Your task to perform on an android device: Search for Mexican restaurants on Maps Image 0: 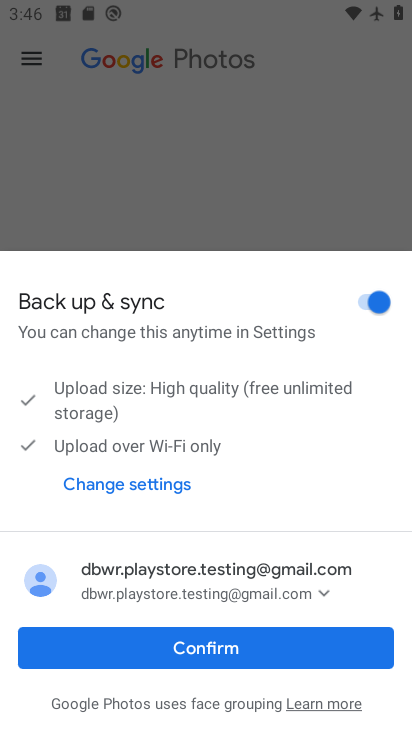
Step 0: press home button
Your task to perform on an android device: Search for Mexican restaurants on Maps Image 1: 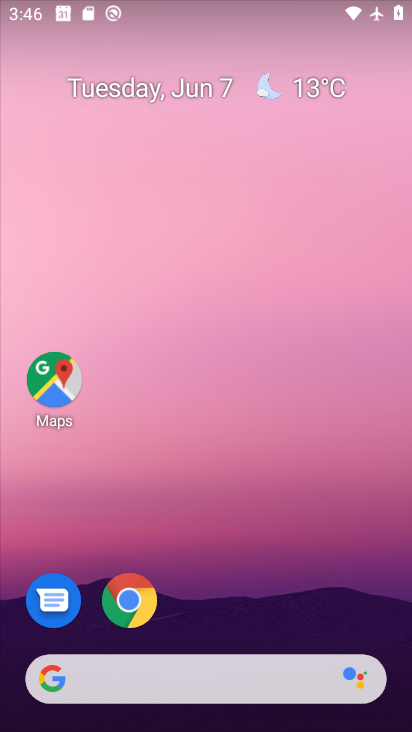
Step 1: click (53, 373)
Your task to perform on an android device: Search for Mexican restaurants on Maps Image 2: 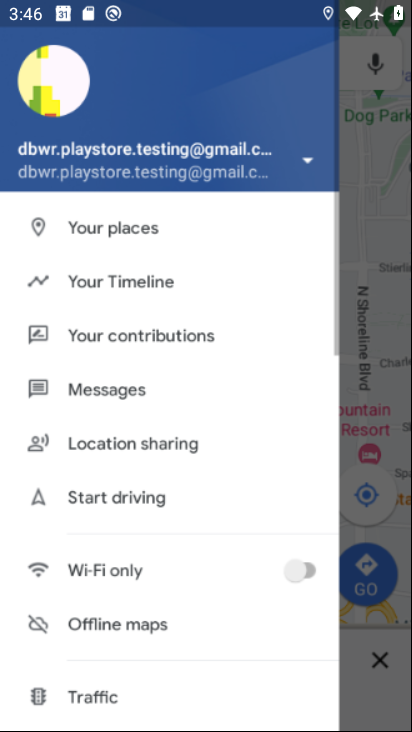
Step 2: click (345, 286)
Your task to perform on an android device: Search for Mexican restaurants on Maps Image 3: 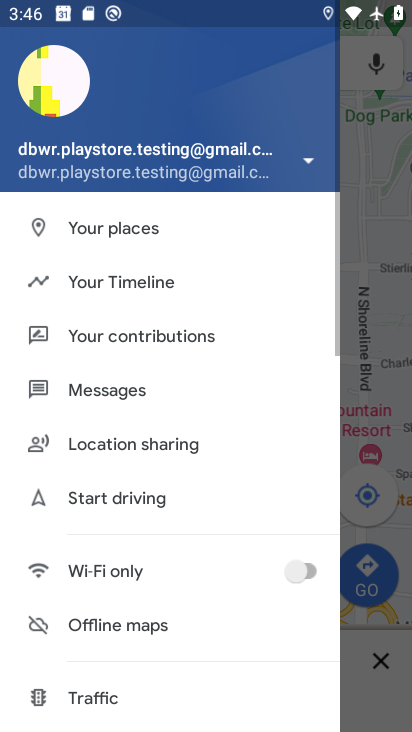
Step 3: click (370, 164)
Your task to perform on an android device: Search for Mexican restaurants on Maps Image 4: 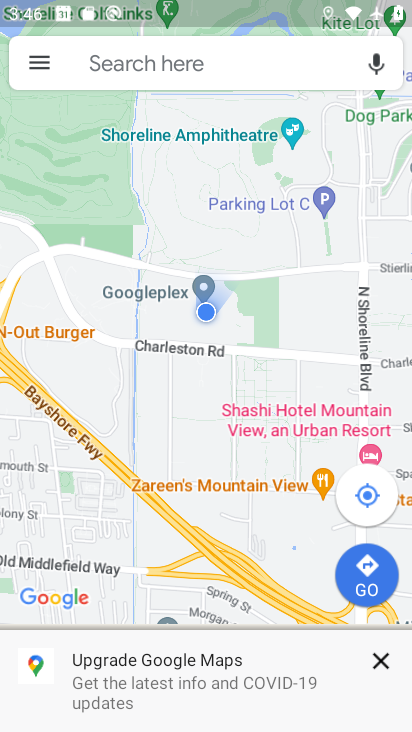
Step 4: click (232, 81)
Your task to perform on an android device: Search for Mexican restaurants on Maps Image 5: 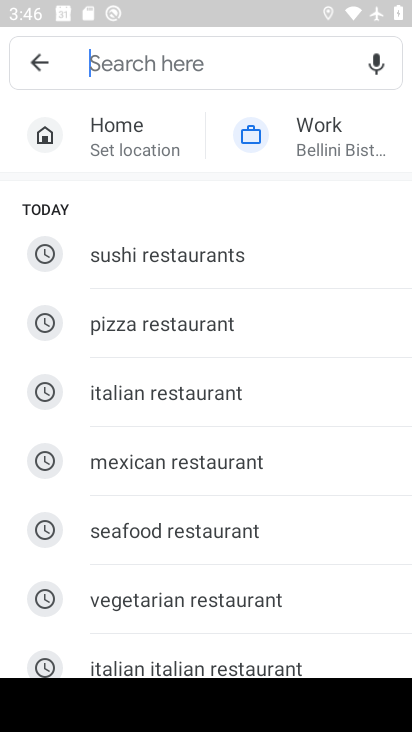
Step 5: type "Mexican restaurant"
Your task to perform on an android device: Search for Mexican restaurants on Maps Image 6: 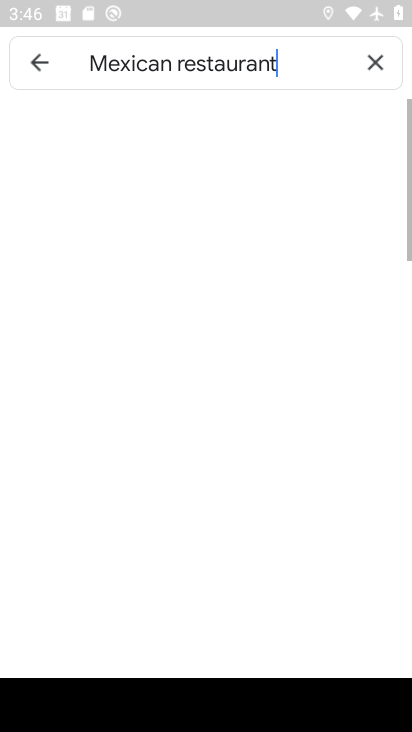
Step 6: type "s"
Your task to perform on an android device: Search for Mexican restaurants on Maps Image 7: 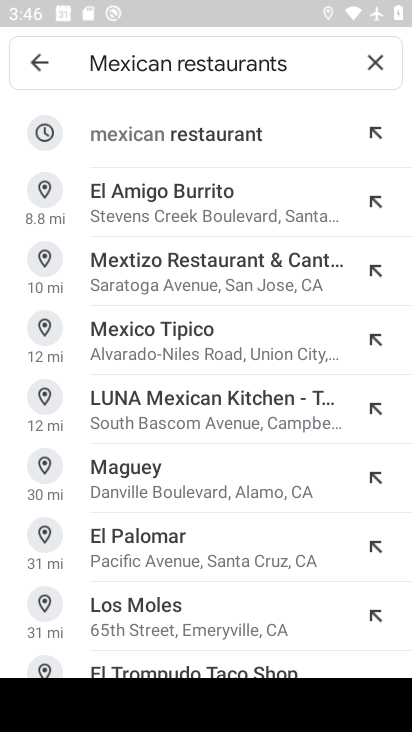
Step 7: press enter
Your task to perform on an android device: Search for Mexican restaurants on Maps Image 8: 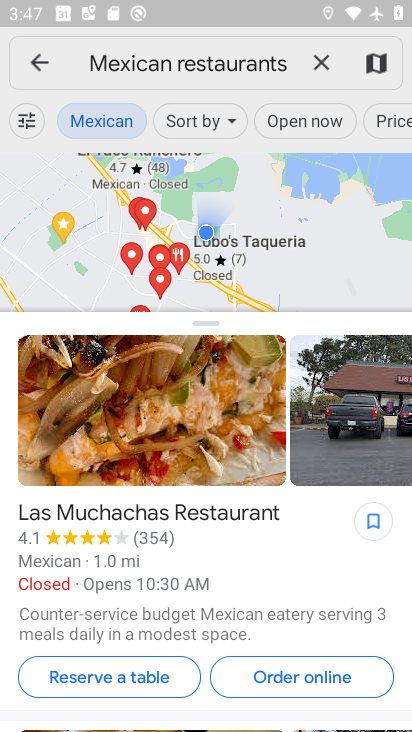
Step 8: task complete